Your task to perform on an android device: toggle improve location accuracy Image 0: 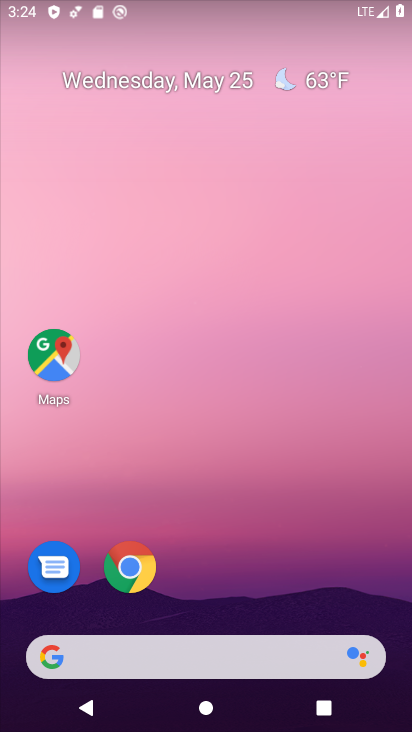
Step 0: drag from (273, 580) to (244, 92)
Your task to perform on an android device: toggle improve location accuracy Image 1: 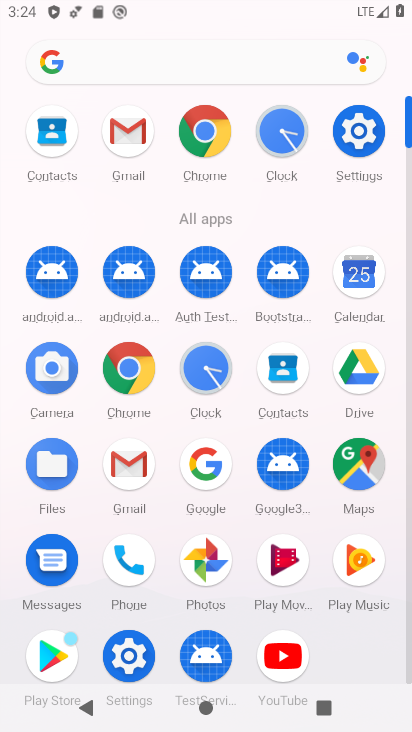
Step 1: click (367, 127)
Your task to perform on an android device: toggle improve location accuracy Image 2: 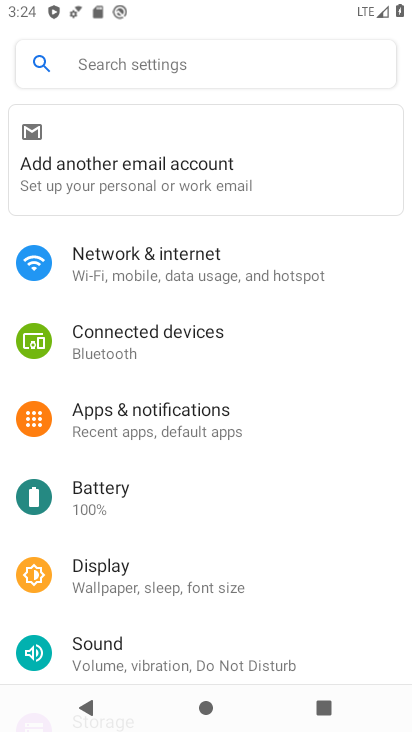
Step 2: drag from (314, 610) to (257, 289)
Your task to perform on an android device: toggle improve location accuracy Image 3: 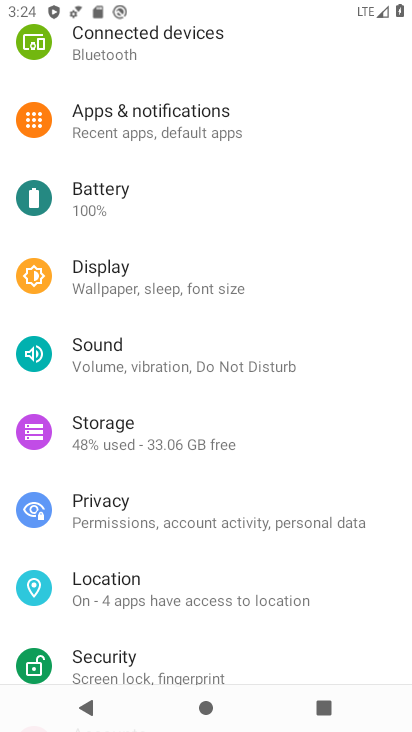
Step 3: click (246, 590)
Your task to perform on an android device: toggle improve location accuracy Image 4: 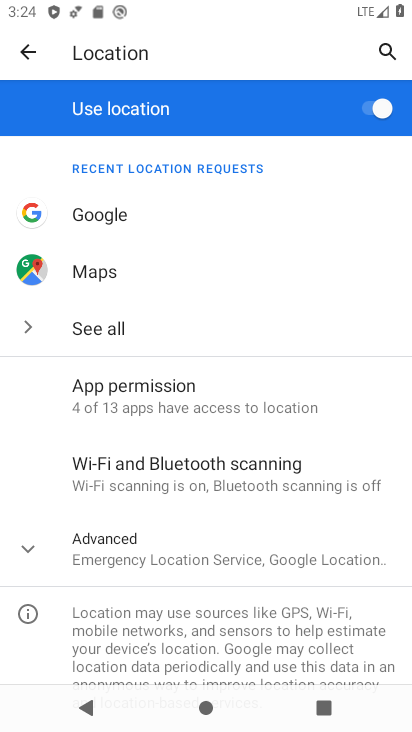
Step 4: click (267, 561)
Your task to perform on an android device: toggle improve location accuracy Image 5: 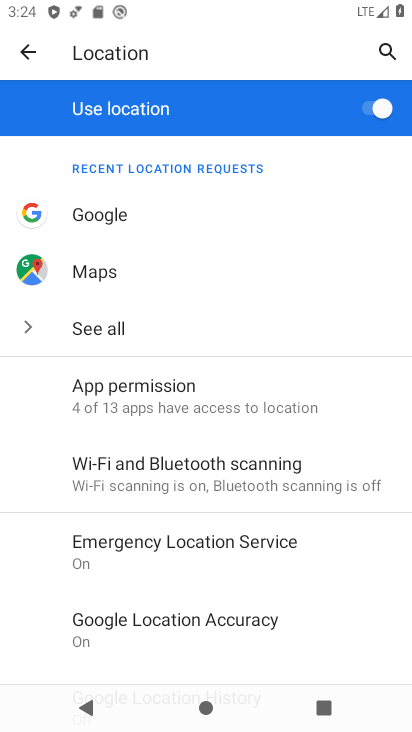
Step 5: drag from (328, 578) to (291, 276)
Your task to perform on an android device: toggle improve location accuracy Image 6: 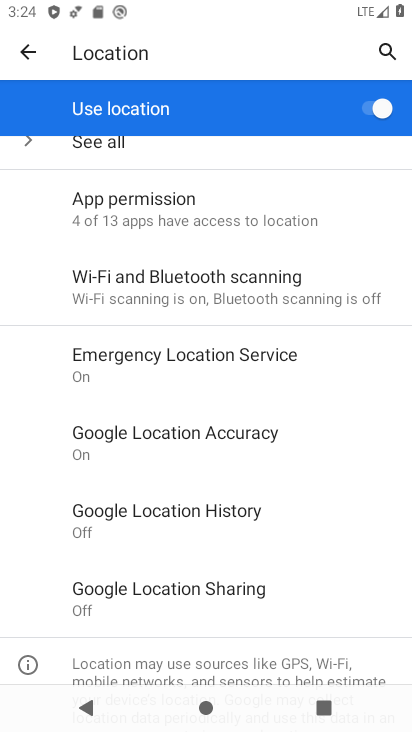
Step 6: click (222, 428)
Your task to perform on an android device: toggle improve location accuracy Image 7: 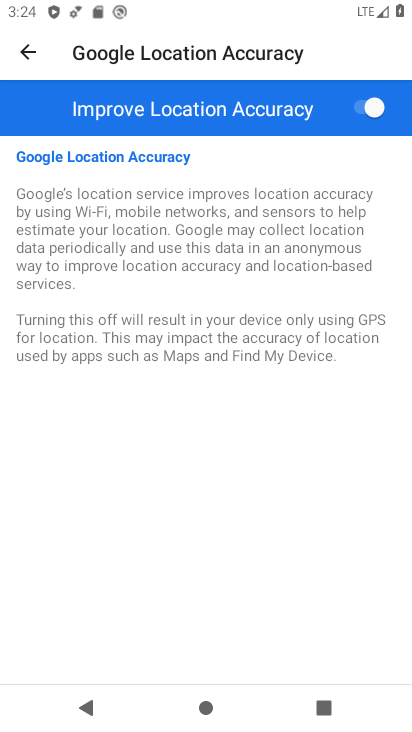
Step 7: task complete